Your task to perform on an android device: toggle airplane mode Image 0: 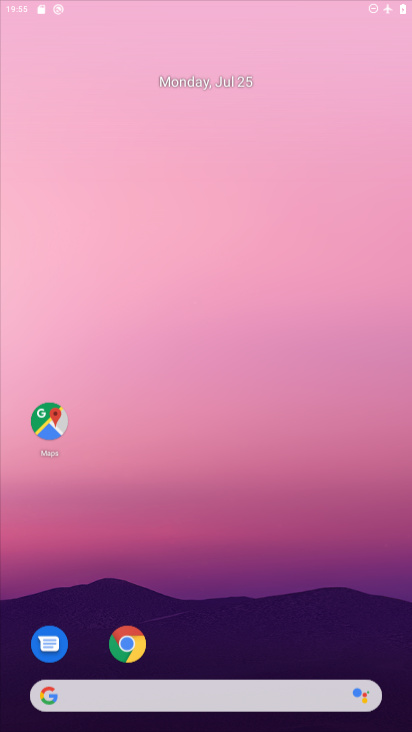
Step 0: press home button
Your task to perform on an android device: toggle airplane mode Image 1: 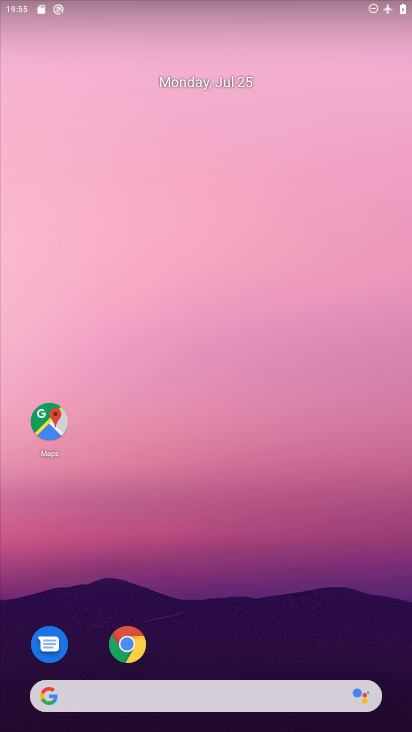
Step 1: task complete